Your task to perform on an android device: Go to Reddit.com Image 0: 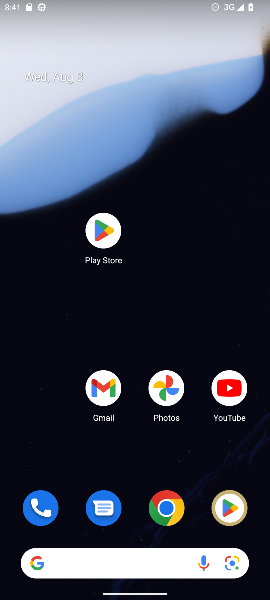
Step 0: click (167, 505)
Your task to perform on an android device: Go to Reddit.com Image 1: 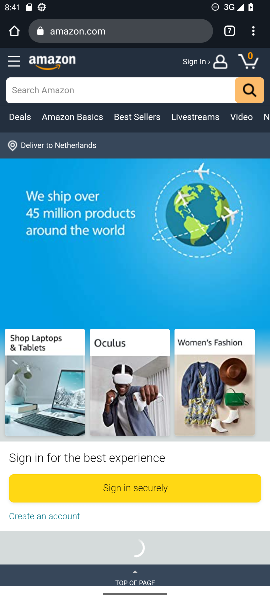
Step 1: click (226, 31)
Your task to perform on an android device: Go to Reddit.com Image 2: 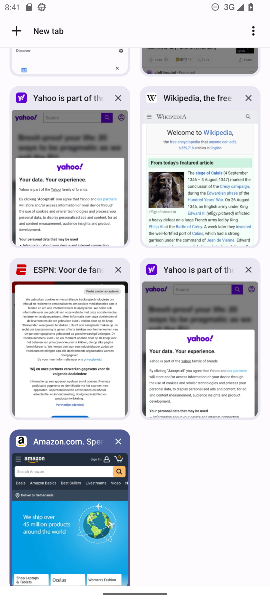
Step 2: click (15, 28)
Your task to perform on an android device: Go to Reddit.com Image 3: 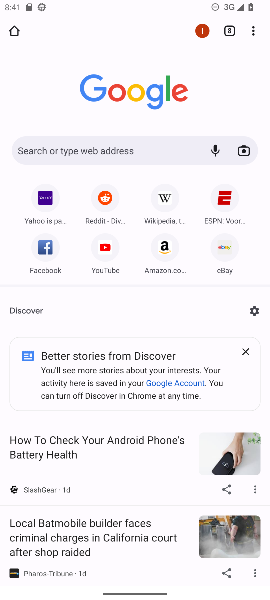
Step 3: click (126, 154)
Your task to perform on an android device: Go to Reddit.com Image 4: 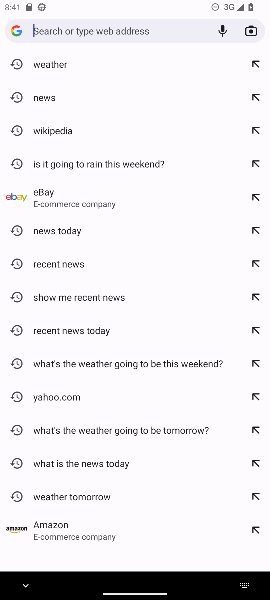
Step 4: type "Reddit.com"
Your task to perform on an android device: Go to Reddit.com Image 5: 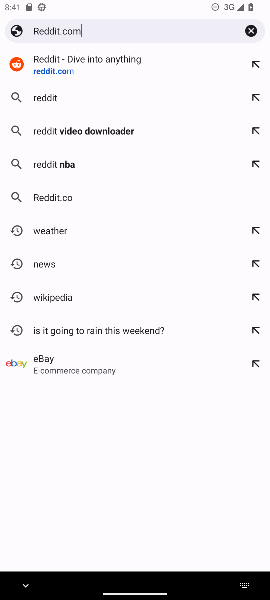
Step 5: type ""
Your task to perform on an android device: Go to Reddit.com Image 6: 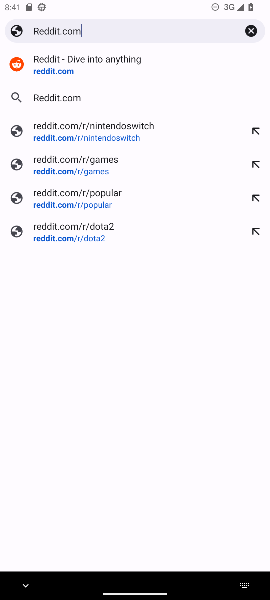
Step 6: click (63, 60)
Your task to perform on an android device: Go to Reddit.com Image 7: 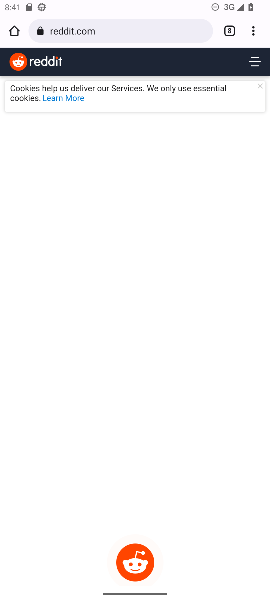
Step 7: task complete